Your task to perform on an android device: Go to Android settings Image 0: 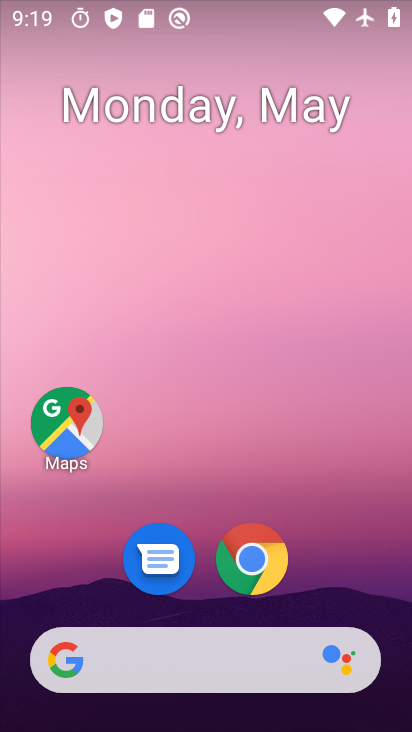
Step 0: drag from (212, 610) to (220, 73)
Your task to perform on an android device: Go to Android settings Image 1: 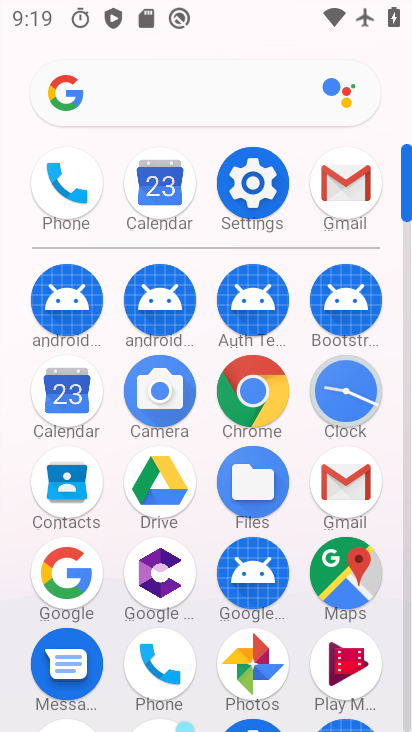
Step 1: click (245, 184)
Your task to perform on an android device: Go to Android settings Image 2: 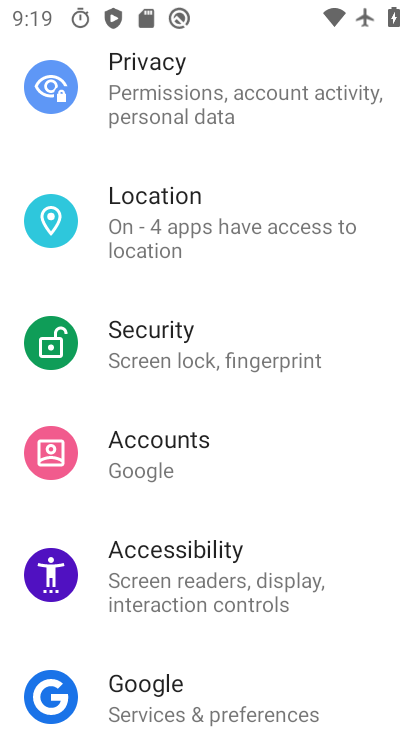
Step 2: drag from (221, 652) to (225, 257)
Your task to perform on an android device: Go to Android settings Image 3: 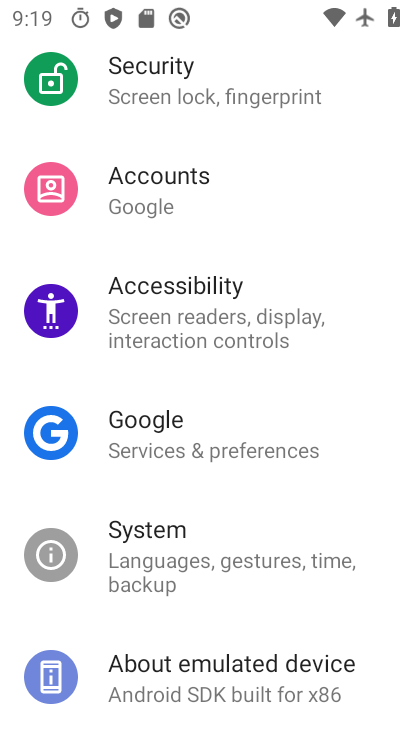
Step 3: click (157, 688)
Your task to perform on an android device: Go to Android settings Image 4: 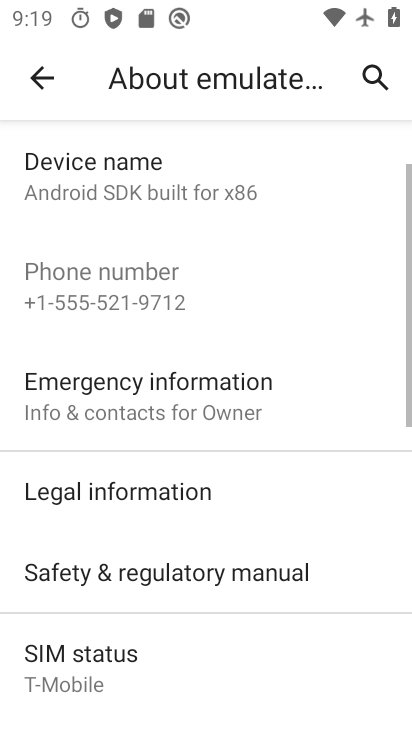
Step 4: drag from (133, 677) to (126, 343)
Your task to perform on an android device: Go to Android settings Image 5: 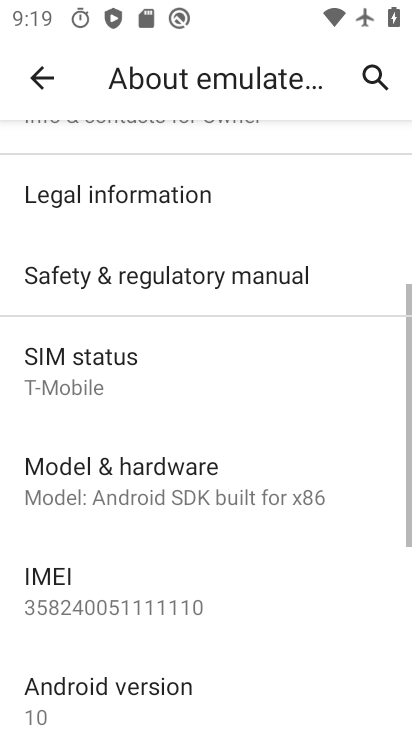
Step 5: drag from (140, 624) to (141, 457)
Your task to perform on an android device: Go to Android settings Image 6: 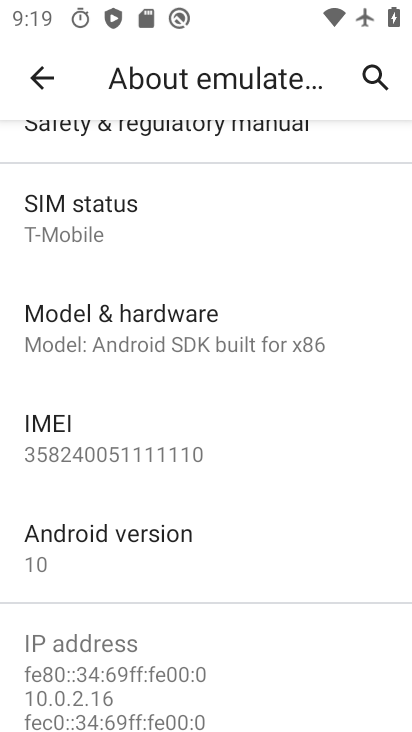
Step 6: click (129, 550)
Your task to perform on an android device: Go to Android settings Image 7: 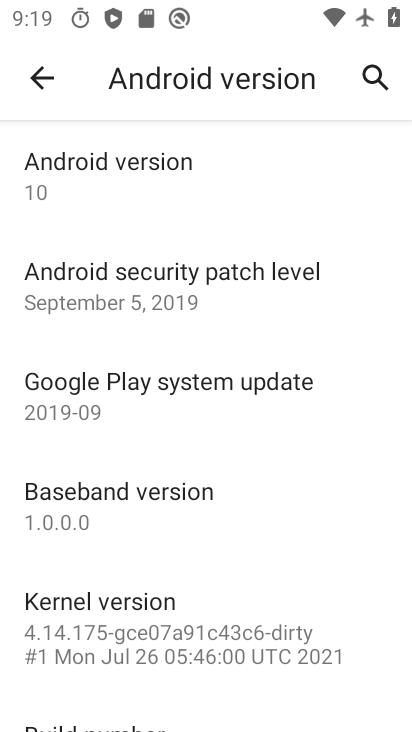
Step 7: click (128, 159)
Your task to perform on an android device: Go to Android settings Image 8: 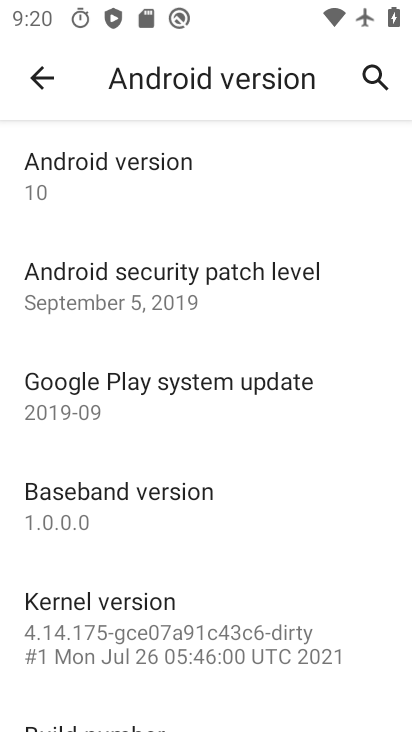
Step 8: task complete